Your task to perform on an android device: Add logitech g933 to the cart on target.com Image 0: 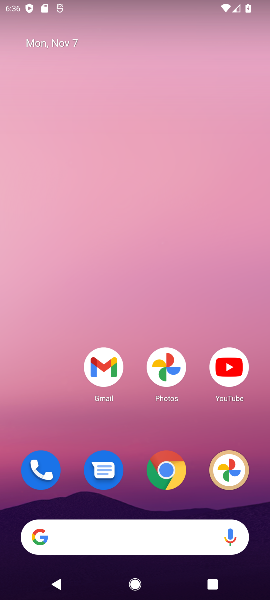
Step 0: click (179, 464)
Your task to perform on an android device: Add logitech g933 to the cart on target.com Image 1: 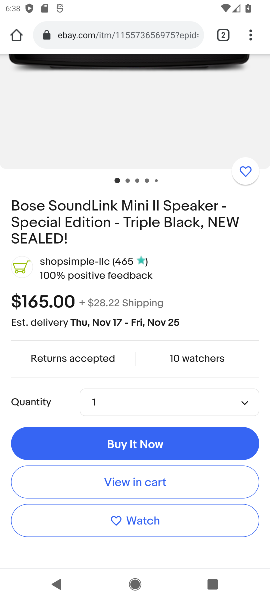
Step 1: click (196, 36)
Your task to perform on an android device: Add logitech g933 to the cart on target.com Image 2: 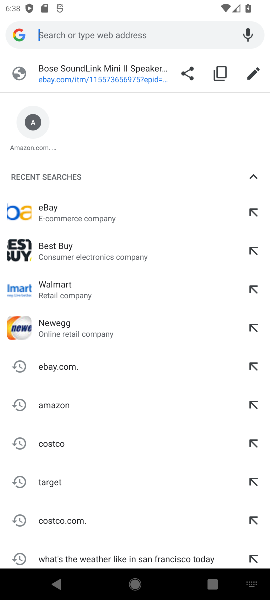
Step 2: click (52, 480)
Your task to perform on an android device: Add logitech g933 to the cart on target.com Image 3: 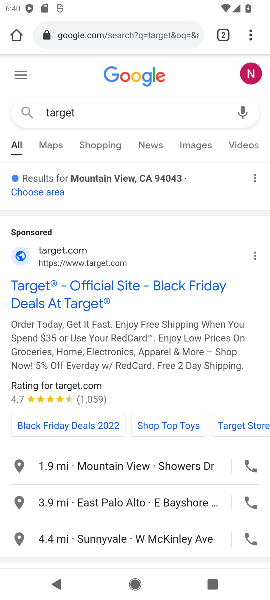
Step 3: click (80, 289)
Your task to perform on an android device: Add logitech g933 to the cart on target.com Image 4: 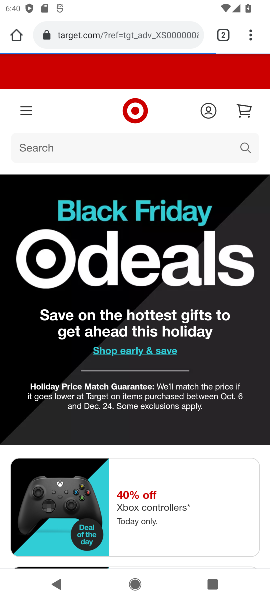
Step 4: click (67, 150)
Your task to perform on an android device: Add logitech g933 to the cart on target.com Image 5: 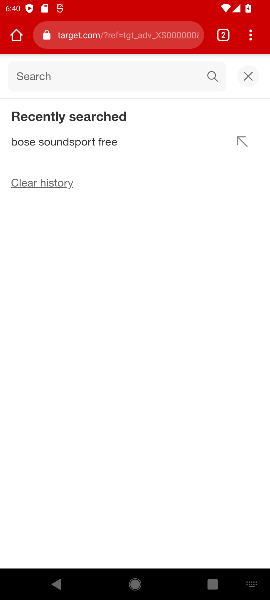
Step 5: type "logitech g933"
Your task to perform on an android device: Add logitech g933 to the cart on target.com Image 6: 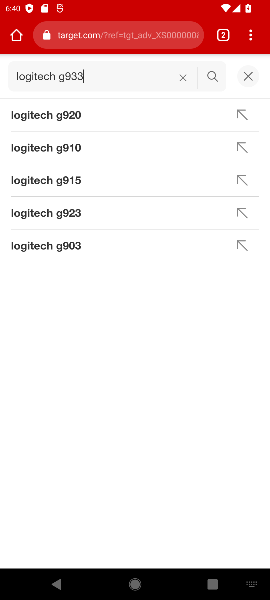
Step 6: click (205, 85)
Your task to perform on an android device: Add logitech g933 to the cart on target.com Image 7: 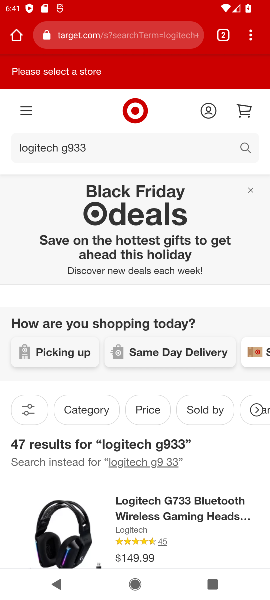
Step 7: task complete